Your task to perform on an android device: make emails show in primary in the gmail app Image 0: 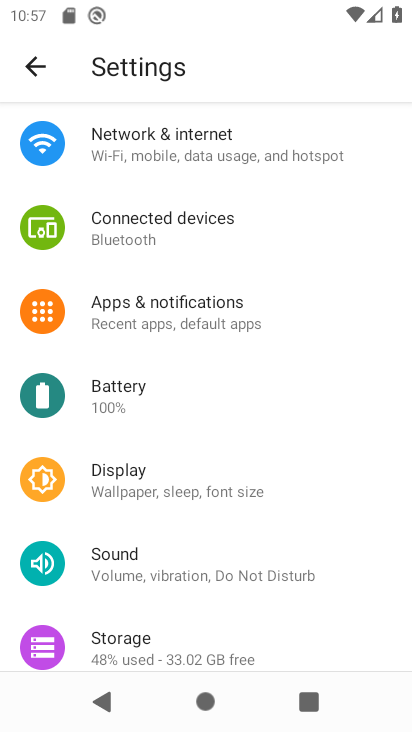
Step 0: press home button
Your task to perform on an android device: make emails show in primary in the gmail app Image 1: 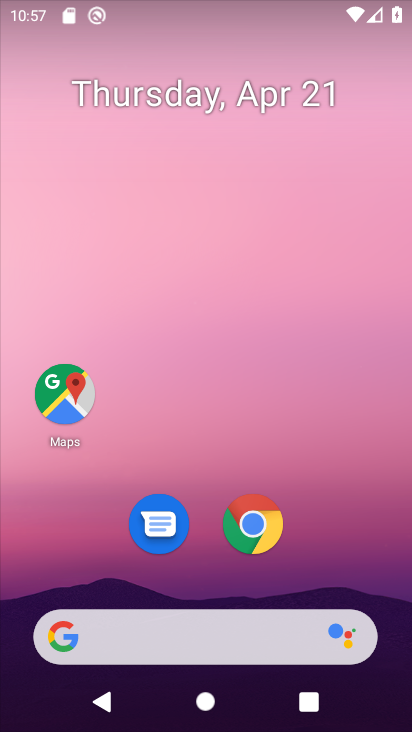
Step 1: drag from (357, 538) to (315, 107)
Your task to perform on an android device: make emails show in primary in the gmail app Image 2: 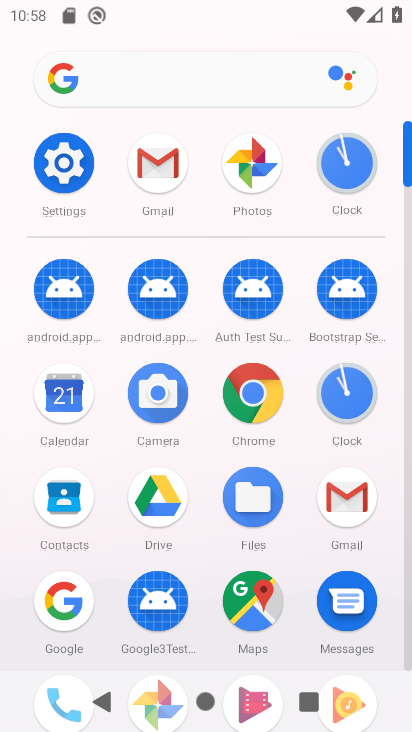
Step 2: click (161, 161)
Your task to perform on an android device: make emails show in primary in the gmail app Image 3: 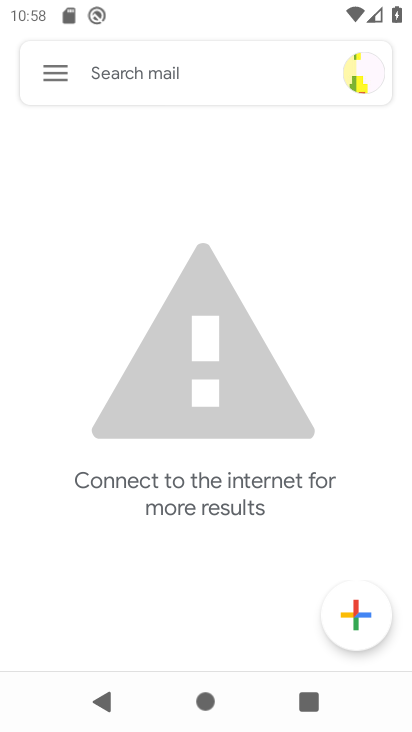
Step 3: click (57, 71)
Your task to perform on an android device: make emails show in primary in the gmail app Image 4: 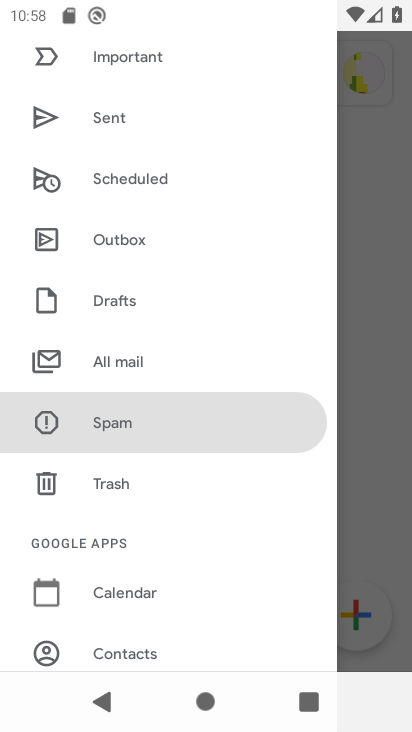
Step 4: drag from (162, 561) to (236, 185)
Your task to perform on an android device: make emails show in primary in the gmail app Image 5: 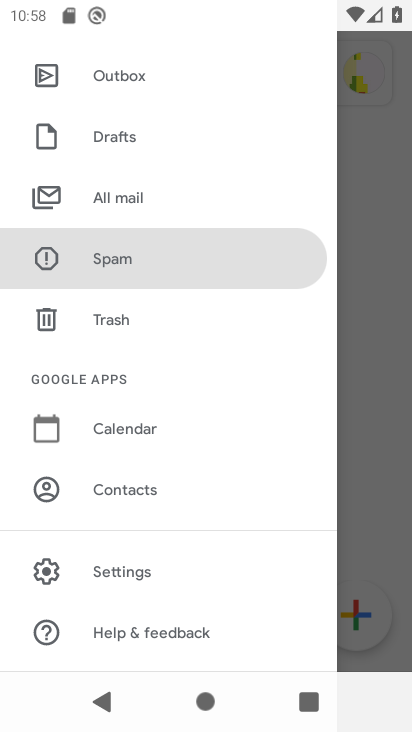
Step 5: click (148, 567)
Your task to perform on an android device: make emails show in primary in the gmail app Image 6: 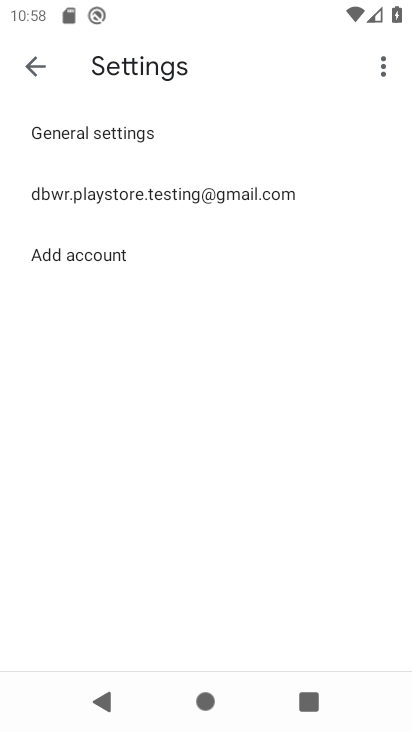
Step 6: click (277, 190)
Your task to perform on an android device: make emails show in primary in the gmail app Image 7: 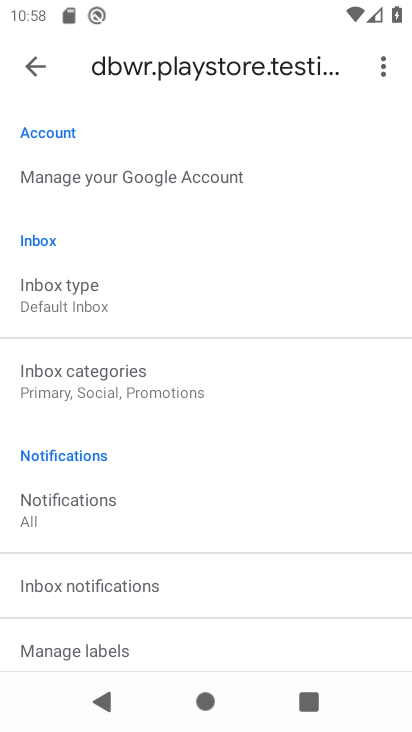
Step 7: click (76, 367)
Your task to perform on an android device: make emails show in primary in the gmail app Image 8: 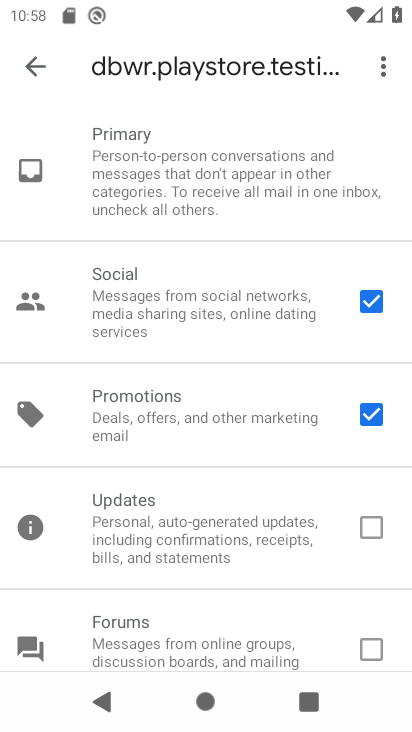
Step 8: click (364, 301)
Your task to perform on an android device: make emails show in primary in the gmail app Image 9: 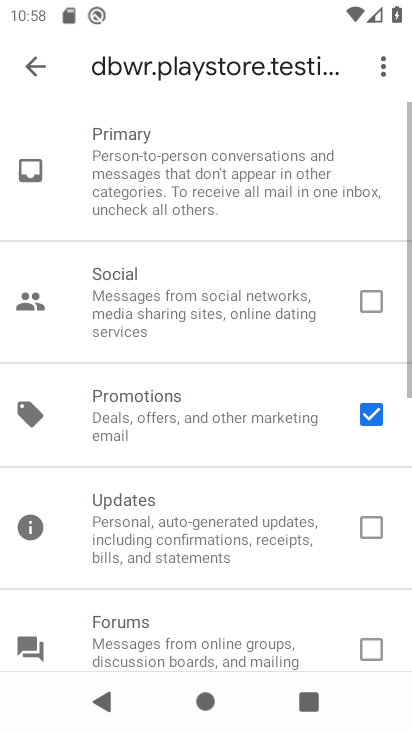
Step 9: click (365, 411)
Your task to perform on an android device: make emails show in primary in the gmail app Image 10: 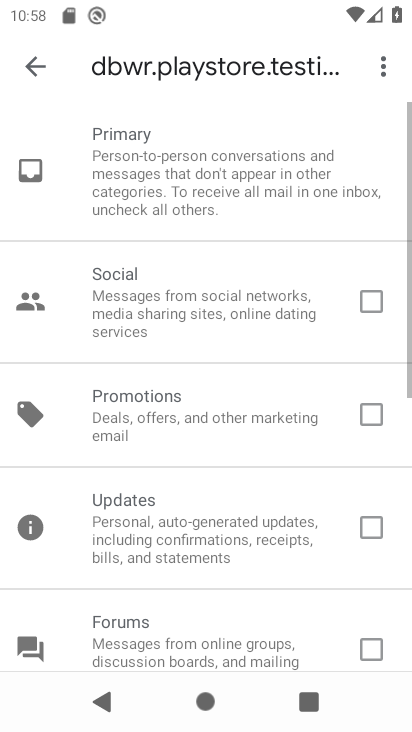
Step 10: click (42, 68)
Your task to perform on an android device: make emails show in primary in the gmail app Image 11: 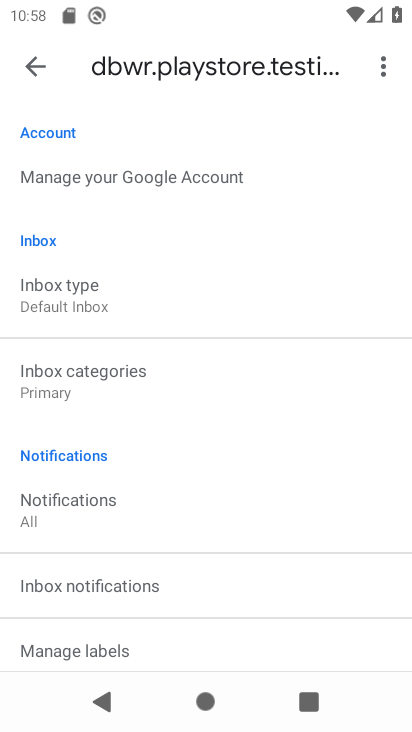
Step 11: task complete